Your task to perform on an android device: Search for pizza restaurants on Maps Image 0: 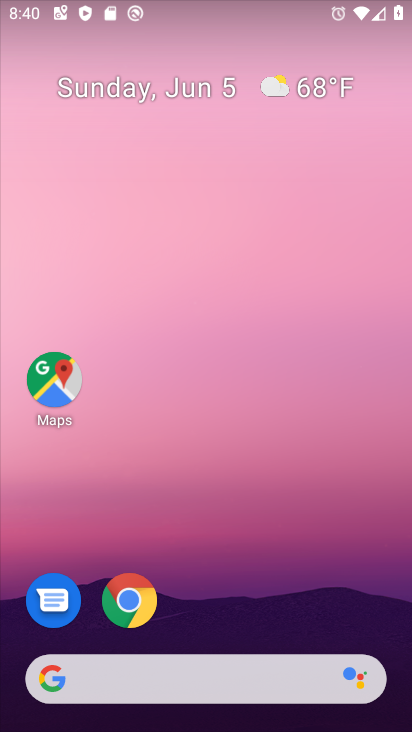
Step 0: click (406, 661)
Your task to perform on an android device: Search for pizza restaurants on Maps Image 1: 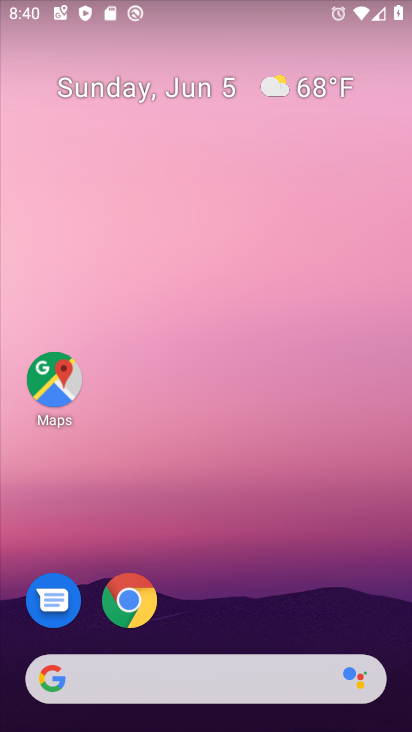
Step 1: drag from (377, 323) to (285, 82)
Your task to perform on an android device: Search for pizza restaurants on Maps Image 2: 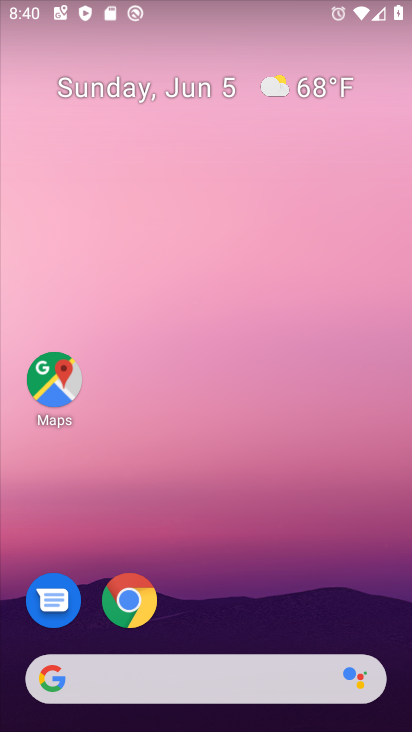
Step 2: drag from (397, 640) to (311, 34)
Your task to perform on an android device: Search for pizza restaurants on Maps Image 3: 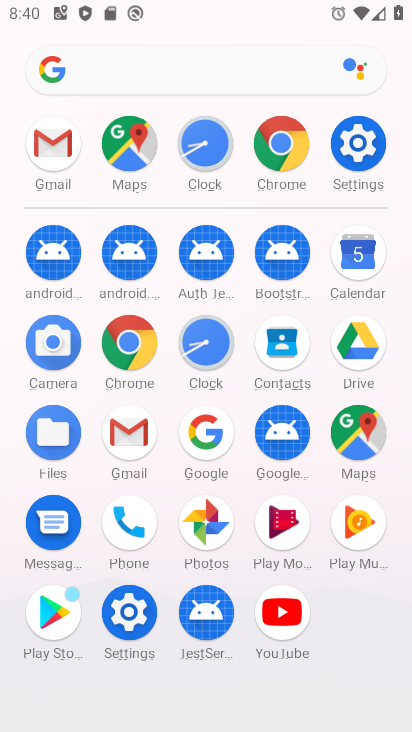
Step 3: click (349, 421)
Your task to perform on an android device: Search for pizza restaurants on Maps Image 4: 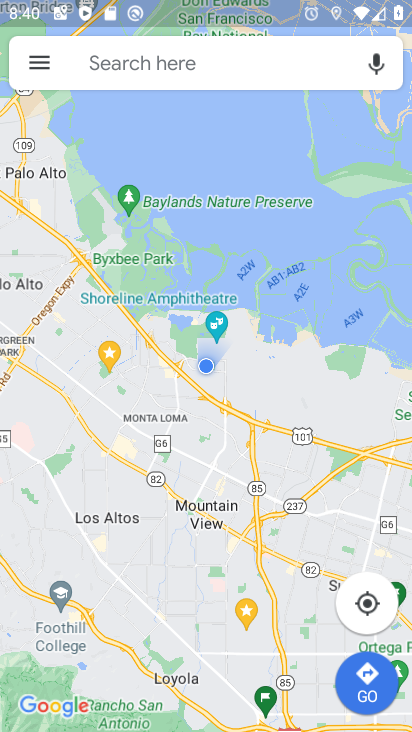
Step 4: click (110, 61)
Your task to perform on an android device: Search for pizza restaurants on Maps Image 5: 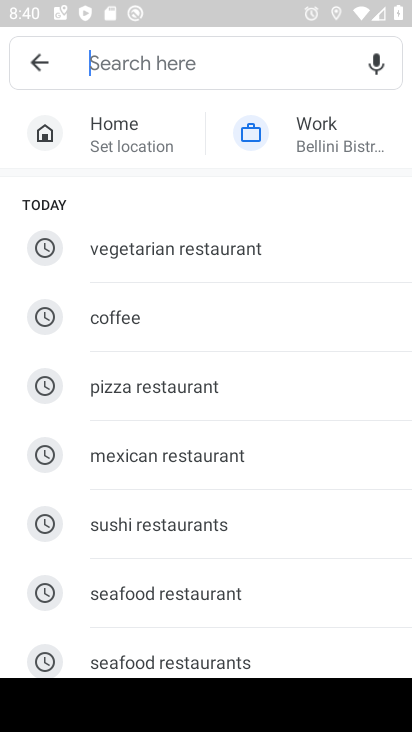
Step 5: click (171, 399)
Your task to perform on an android device: Search for pizza restaurants on Maps Image 6: 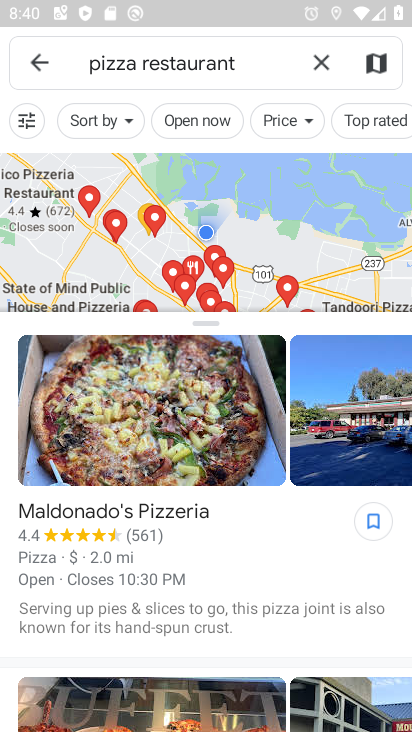
Step 6: task complete